Your task to perform on an android device: Open location settings Image 0: 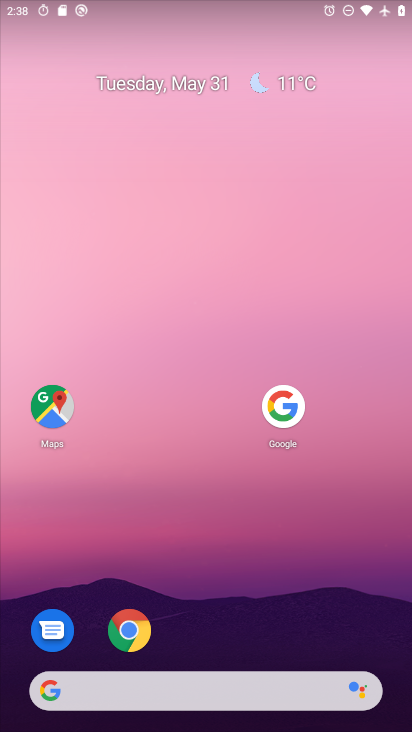
Step 0: press home button
Your task to perform on an android device: Open location settings Image 1: 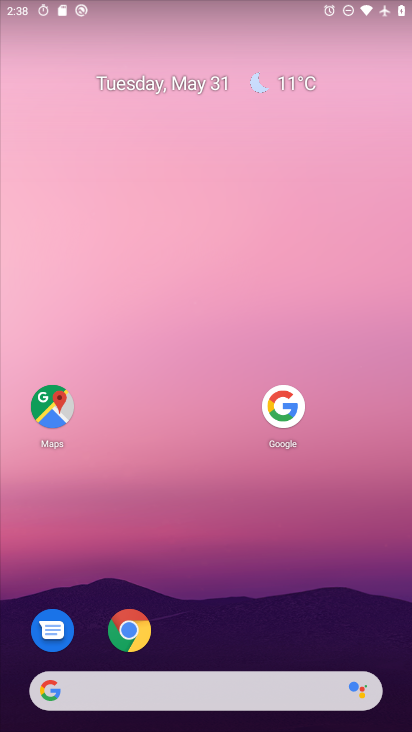
Step 1: drag from (250, 694) to (329, 135)
Your task to perform on an android device: Open location settings Image 2: 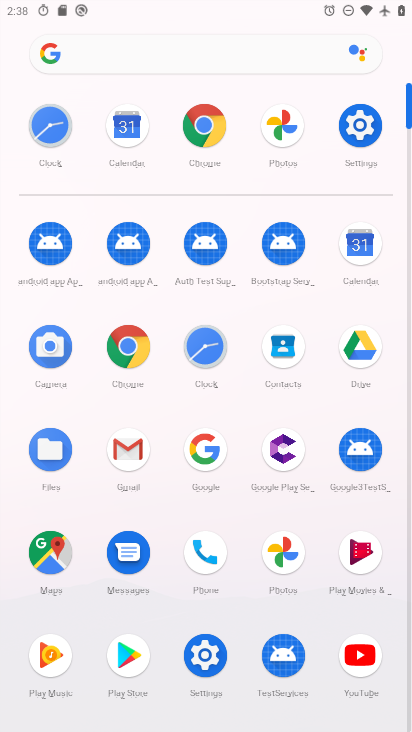
Step 2: click (366, 131)
Your task to perform on an android device: Open location settings Image 3: 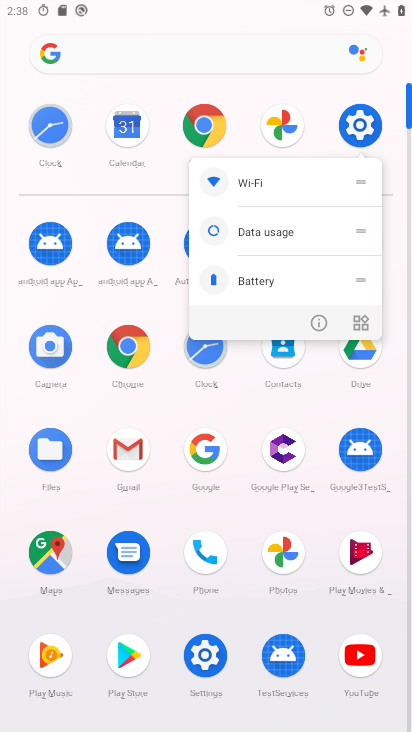
Step 3: click (366, 131)
Your task to perform on an android device: Open location settings Image 4: 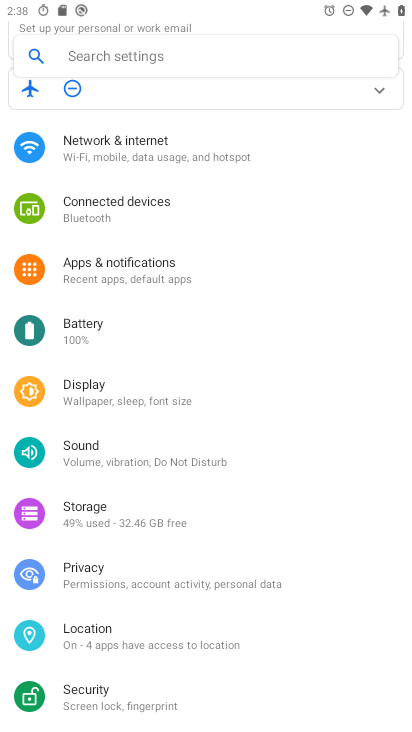
Step 4: click (65, 643)
Your task to perform on an android device: Open location settings Image 5: 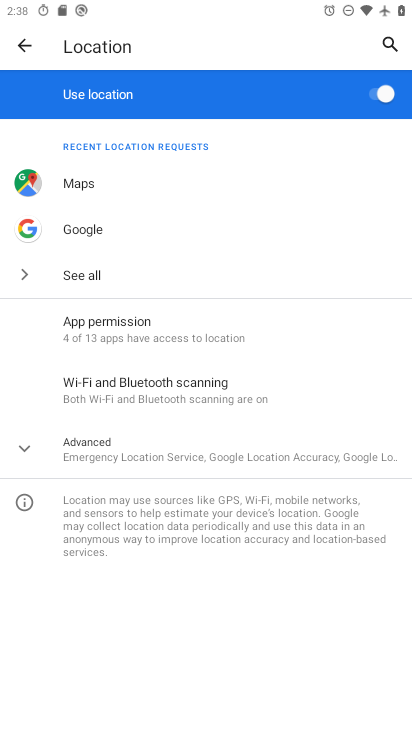
Step 5: task complete